Your task to perform on an android device: Open settings Image 0: 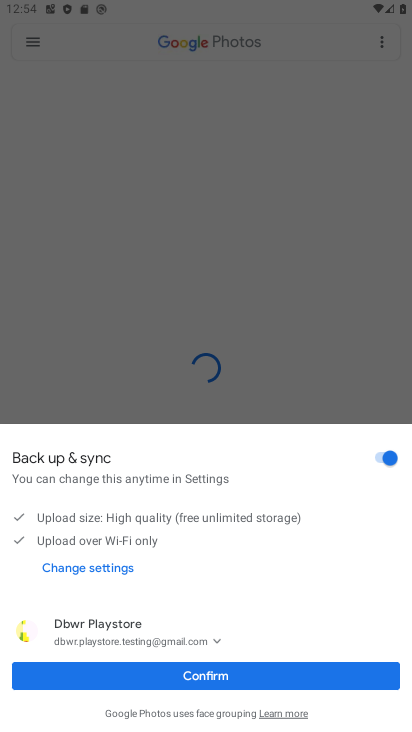
Step 0: press home button
Your task to perform on an android device: Open settings Image 1: 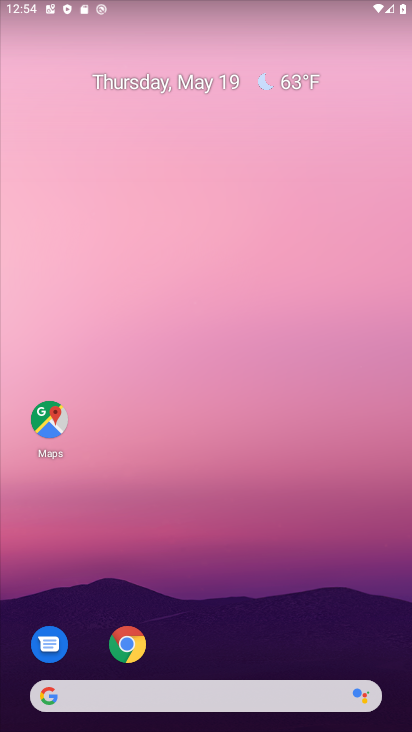
Step 1: drag from (389, 691) to (286, 169)
Your task to perform on an android device: Open settings Image 2: 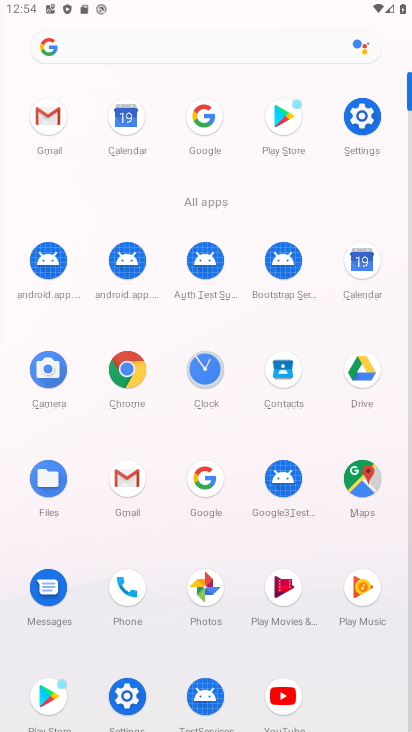
Step 2: click (359, 116)
Your task to perform on an android device: Open settings Image 3: 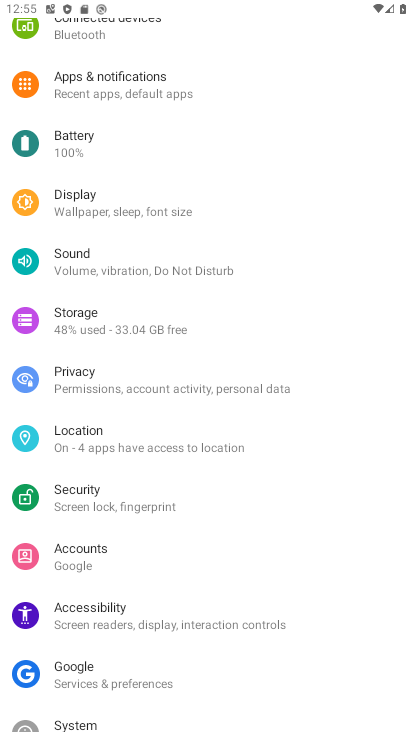
Step 3: task complete